Your task to perform on an android device: toggle priority inbox in the gmail app Image 0: 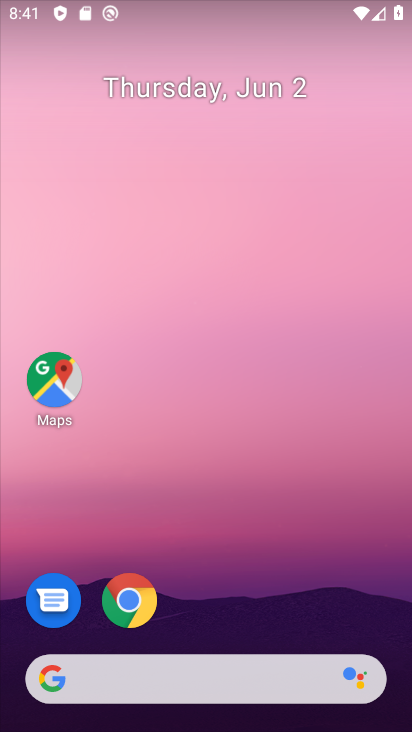
Step 0: drag from (193, 612) to (230, 4)
Your task to perform on an android device: toggle priority inbox in the gmail app Image 1: 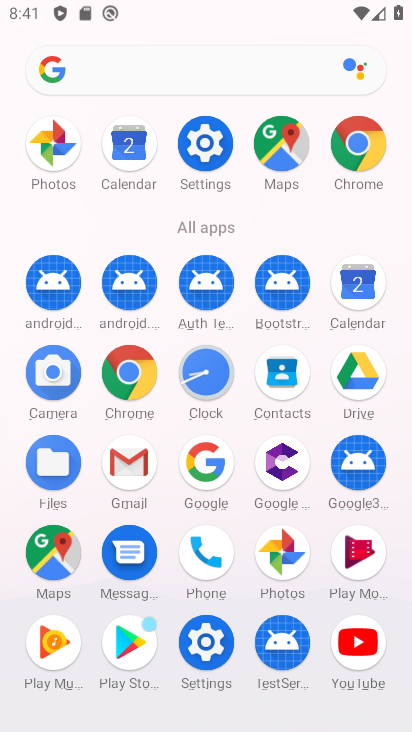
Step 1: click (128, 468)
Your task to perform on an android device: toggle priority inbox in the gmail app Image 2: 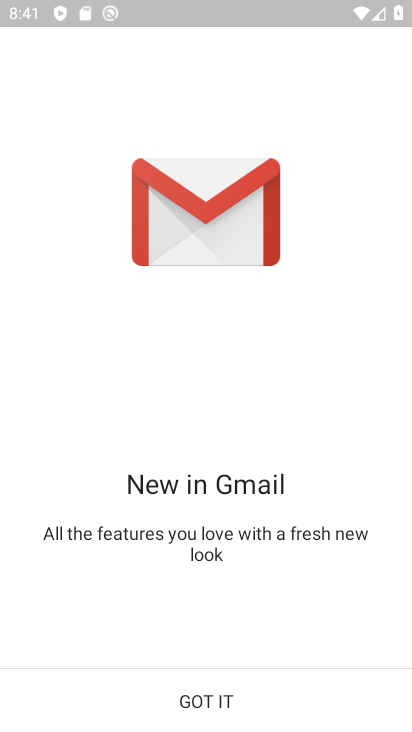
Step 2: click (202, 708)
Your task to perform on an android device: toggle priority inbox in the gmail app Image 3: 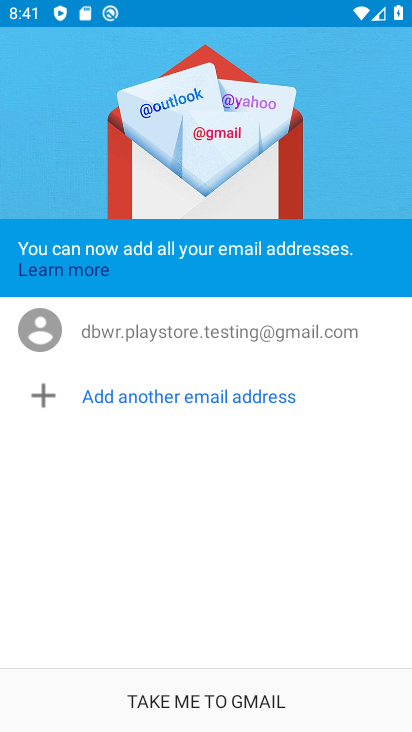
Step 3: click (202, 708)
Your task to perform on an android device: toggle priority inbox in the gmail app Image 4: 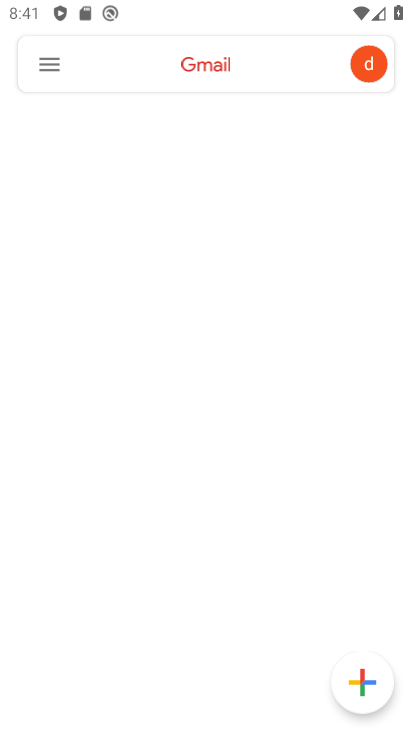
Step 4: click (43, 67)
Your task to perform on an android device: toggle priority inbox in the gmail app Image 5: 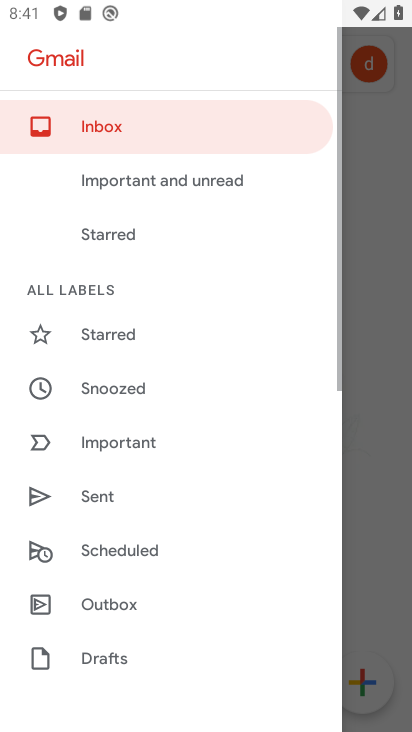
Step 5: drag from (109, 609) to (207, 125)
Your task to perform on an android device: toggle priority inbox in the gmail app Image 6: 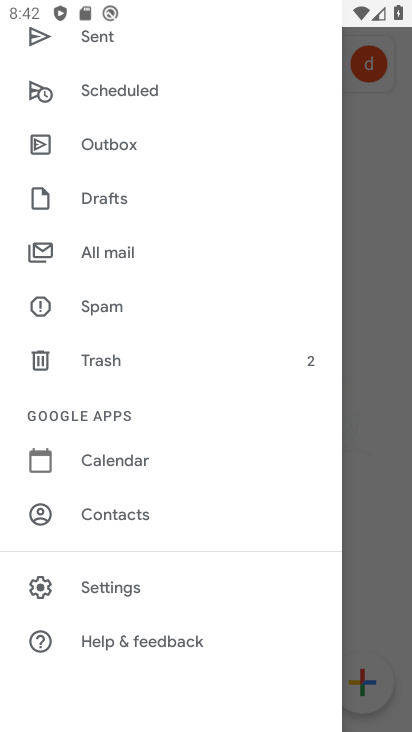
Step 6: click (118, 588)
Your task to perform on an android device: toggle priority inbox in the gmail app Image 7: 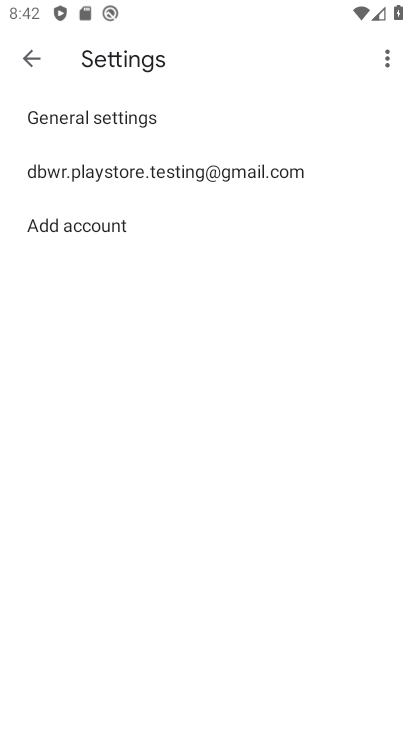
Step 7: click (90, 172)
Your task to perform on an android device: toggle priority inbox in the gmail app Image 8: 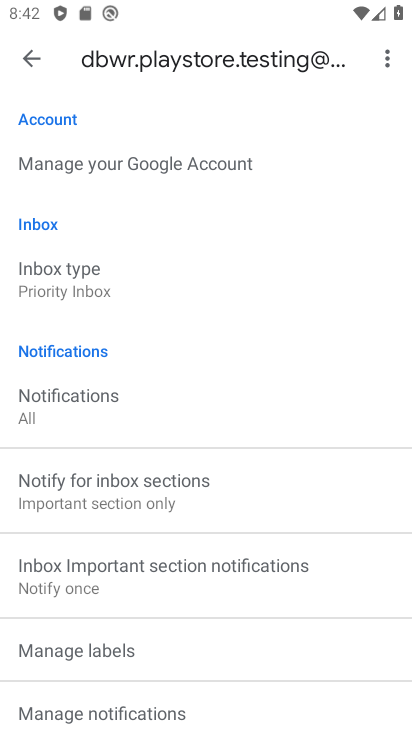
Step 8: click (81, 283)
Your task to perform on an android device: toggle priority inbox in the gmail app Image 9: 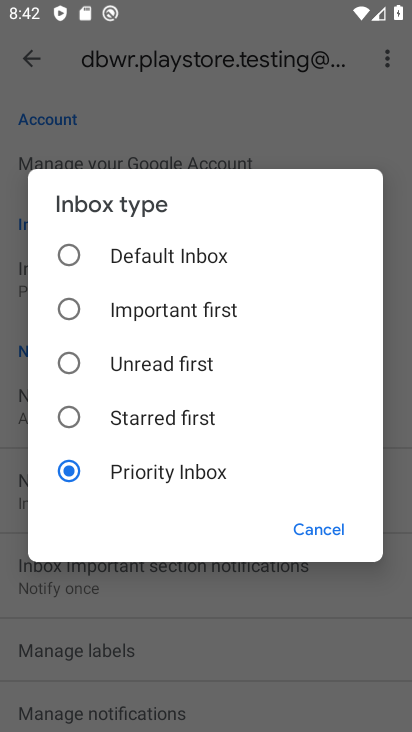
Step 9: click (66, 421)
Your task to perform on an android device: toggle priority inbox in the gmail app Image 10: 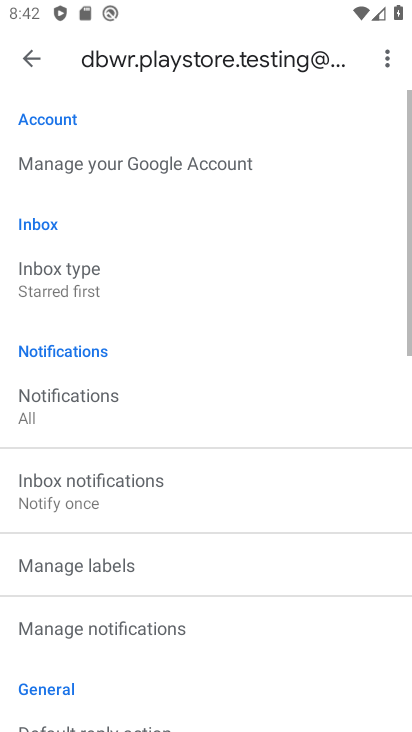
Step 10: task complete